Your task to perform on an android device: Go to sound settings Image 0: 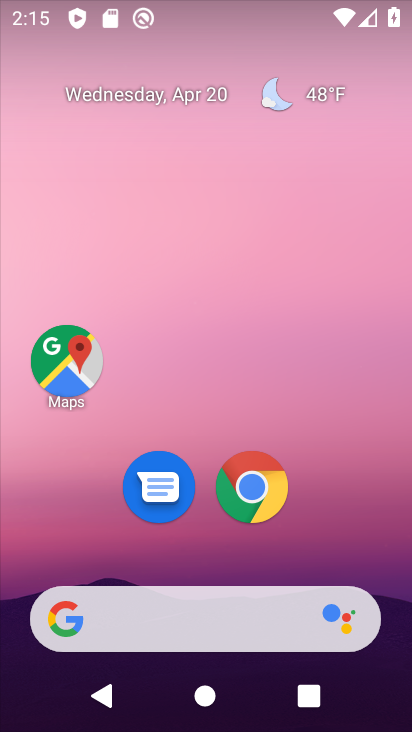
Step 0: drag from (213, 587) to (197, 172)
Your task to perform on an android device: Go to sound settings Image 1: 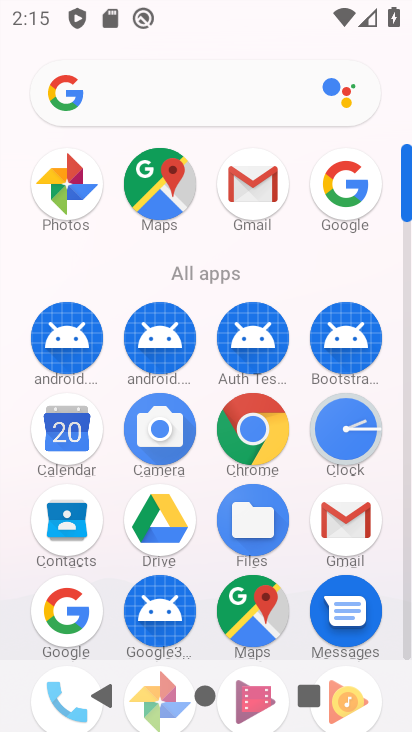
Step 1: drag from (114, 626) to (120, 197)
Your task to perform on an android device: Go to sound settings Image 2: 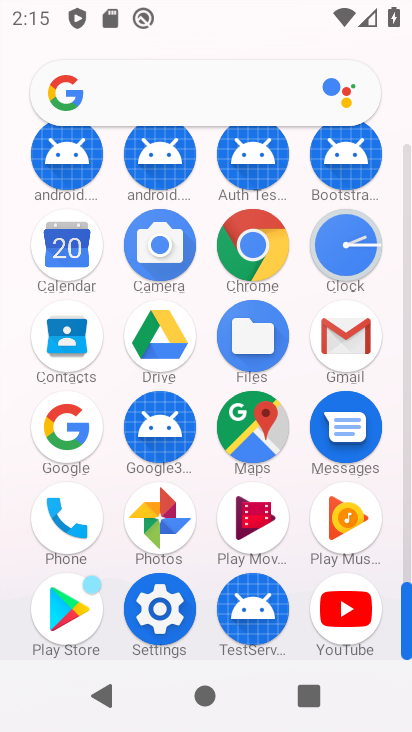
Step 2: click (148, 609)
Your task to perform on an android device: Go to sound settings Image 3: 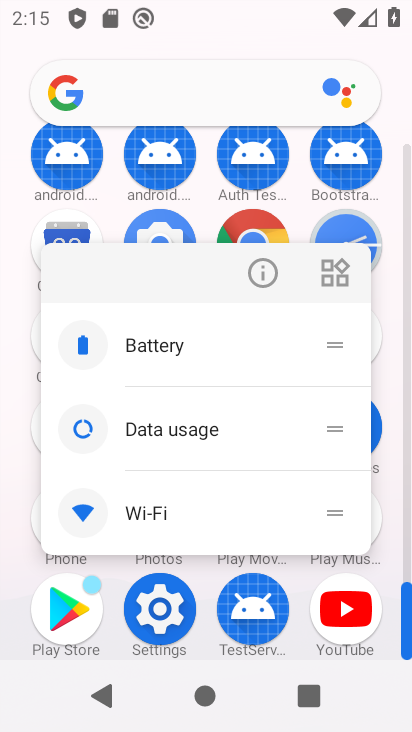
Step 3: click (153, 609)
Your task to perform on an android device: Go to sound settings Image 4: 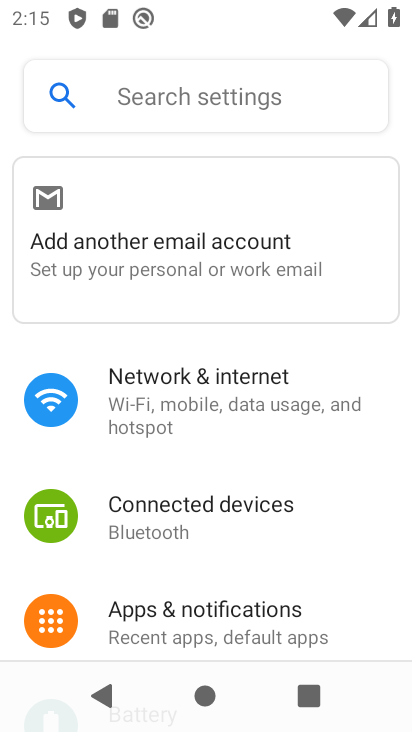
Step 4: drag from (262, 601) to (260, 191)
Your task to perform on an android device: Go to sound settings Image 5: 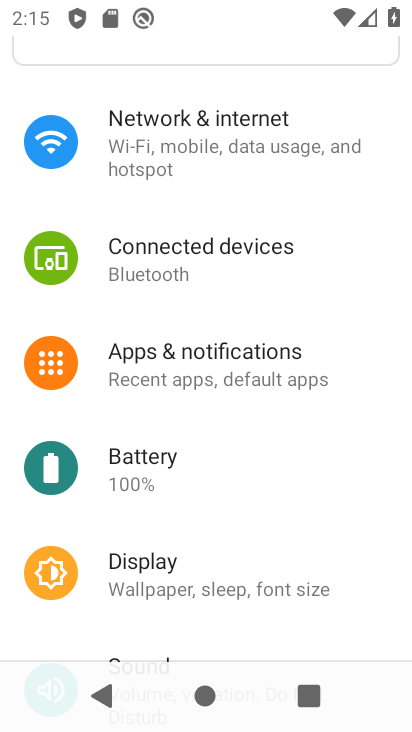
Step 5: drag from (230, 556) to (216, 218)
Your task to perform on an android device: Go to sound settings Image 6: 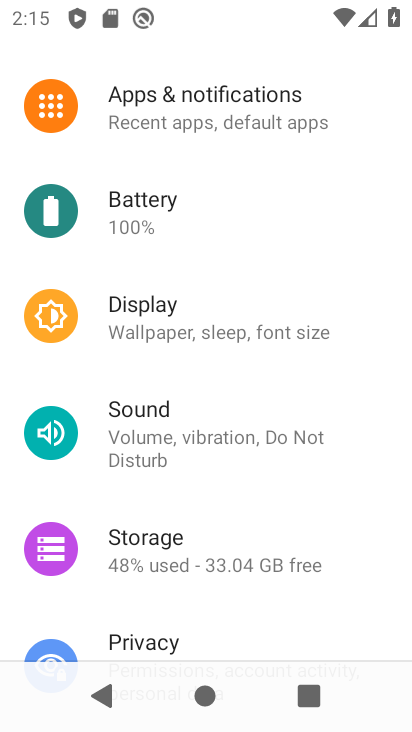
Step 6: click (158, 446)
Your task to perform on an android device: Go to sound settings Image 7: 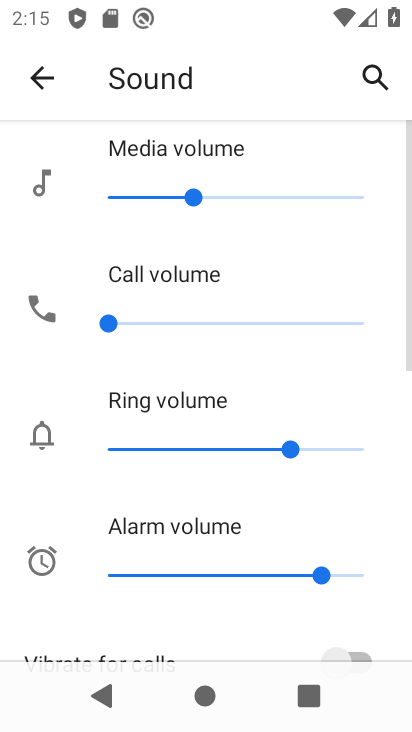
Step 7: drag from (192, 652) to (190, 301)
Your task to perform on an android device: Go to sound settings Image 8: 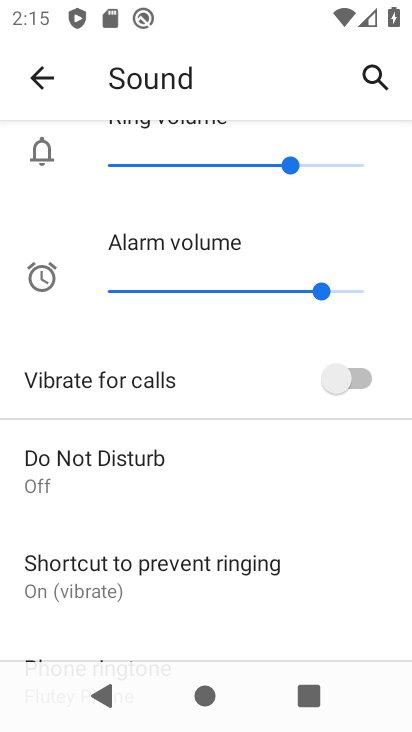
Step 8: drag from (150, 592) to (162, 275)
Your task to perform on an android device: Go to sound settings Image 9: 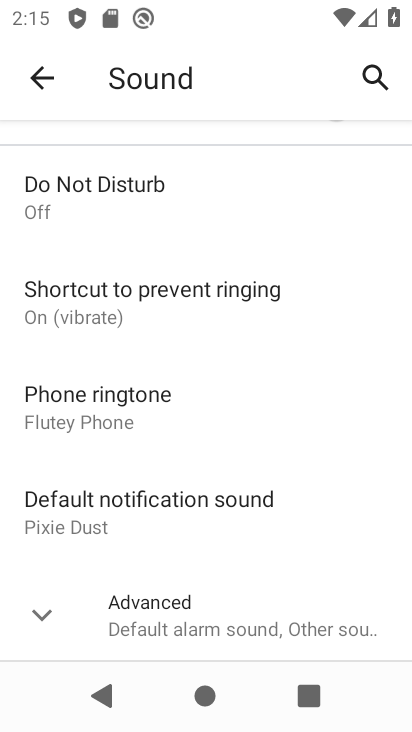
Step 9: click (163, 622)
Your task to perform on an android device: Go to sound settings Image 10: 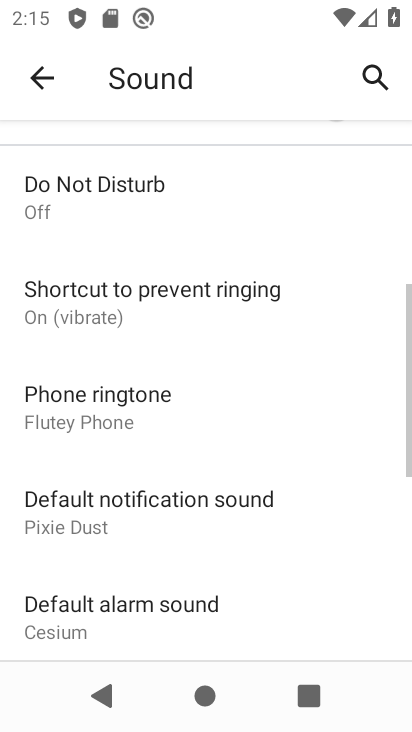
Step 10: task complete